Your task to perform on an android device: open sync settings in chrome Image 0: 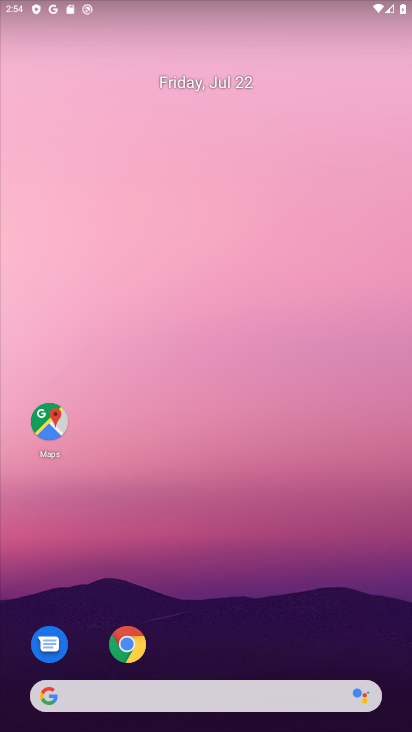
Step 0: click (126, 634)
Your task to perform on an android device: open sync settings in chrome Image 1: 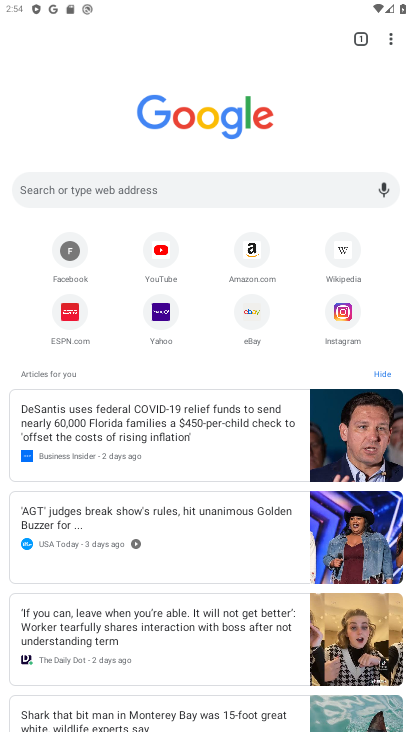
Step 1: click (398, 50)
Your task to perform on an android device: open sync settings in chrome Image 2: 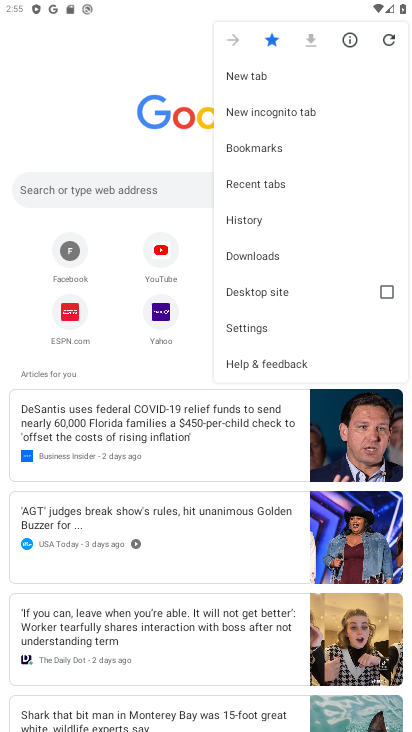
Step 2: click (261, 323)
Your task to perform on an android device: open sync settings in chrome Image 3: 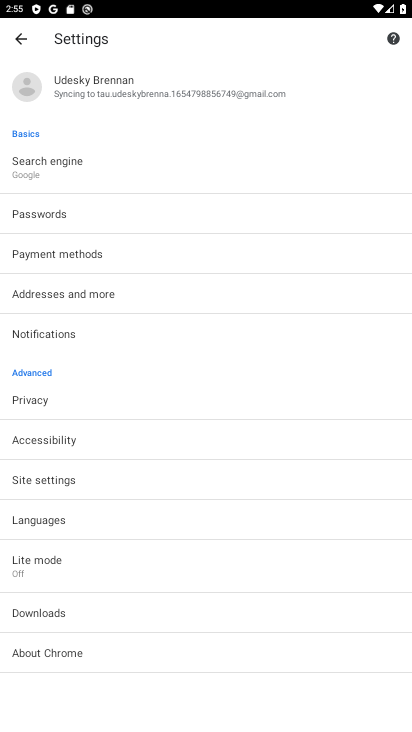
Step 3: task complete